Your task to perform on an android device: Show me popular games on the Play Store Image 0: 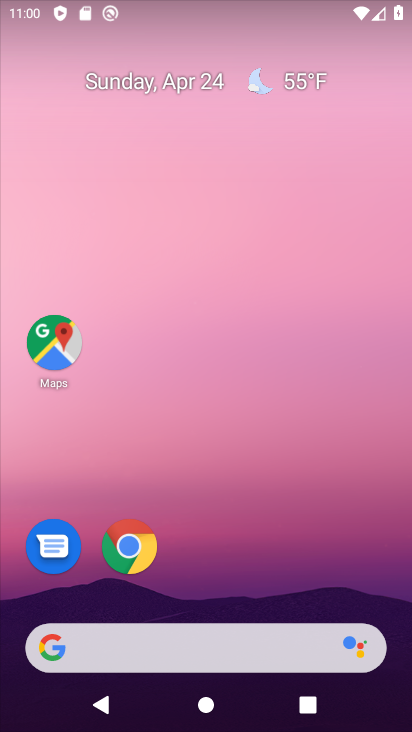
Step 0: drag from (263, 511) to (219, 1)
Your task to perform on an android device: Show me popular games on the Play Store Image 1: 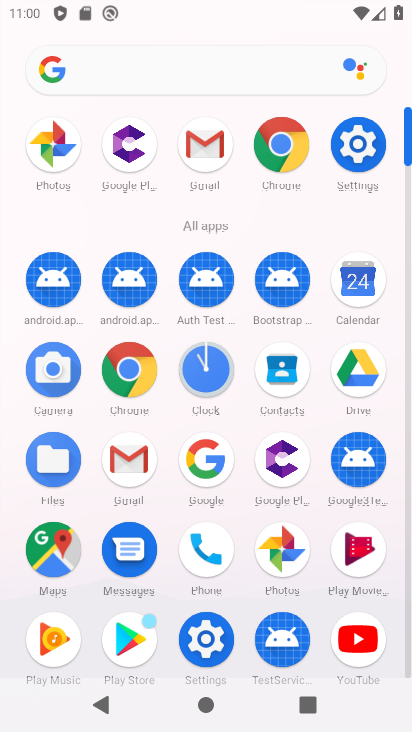
Step 1: drag from (254, 317) to (247, 103)
Your task to perform on an android device: Show me popular games on the Play Store Image 2: 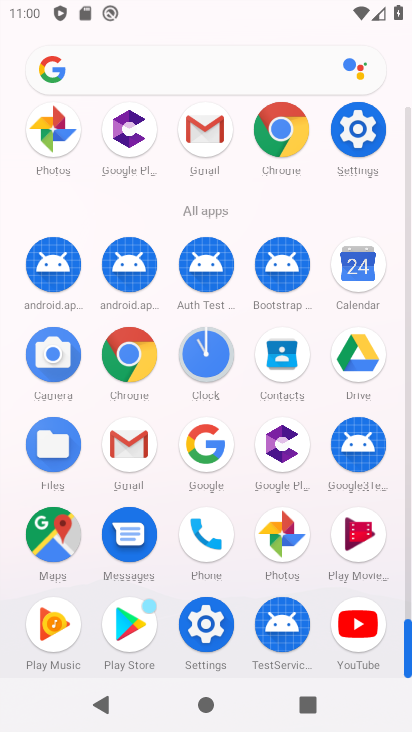
Step 2: click (134, 623)
Your task to perform on an android device: Show me popular games on the Play Store Image 3: 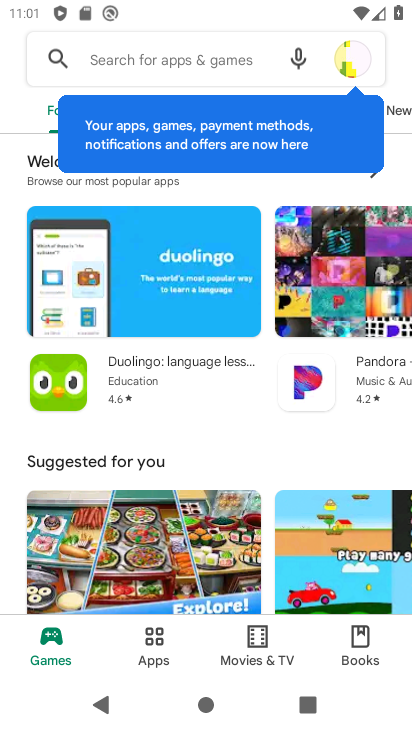
Step 3: click (241, 61)
Your task to perform on an android device: Show me popular games on the Play Store Image 4: 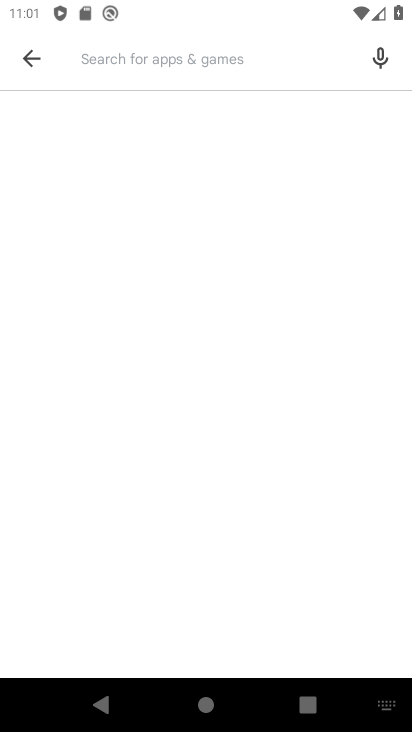
Step 4: type "popular games"
Your task to perform on an android device: Show me popular games on the Play Store Image 5: 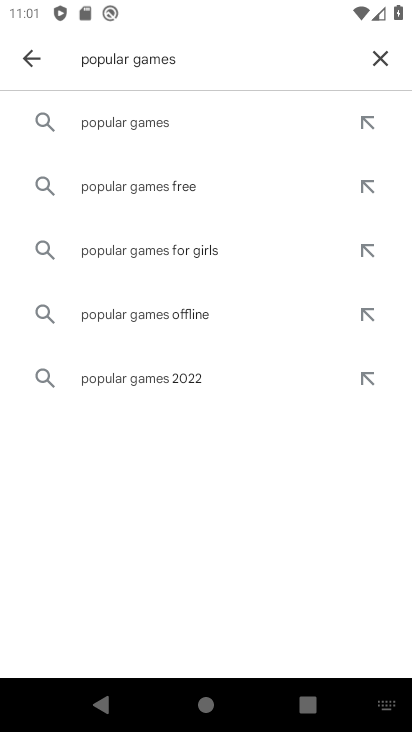
Step 5: click (138, 128)
Your task to perform on an android device: Show me popular games on the Play Store Image 6: 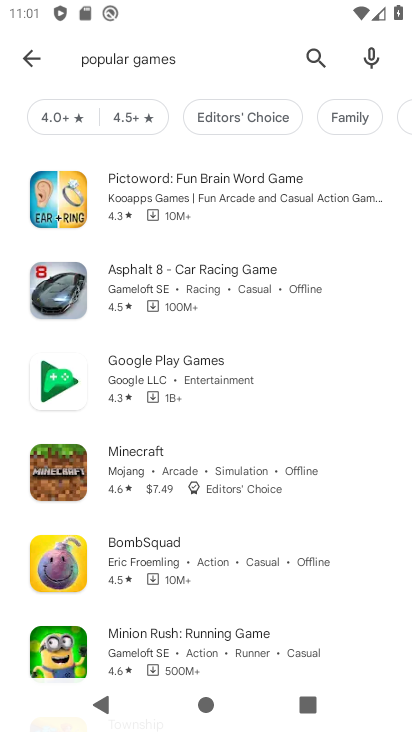
Step 6: task complete